Your task to perform on an android device: turn on the 24-hour format for clock Image 0: 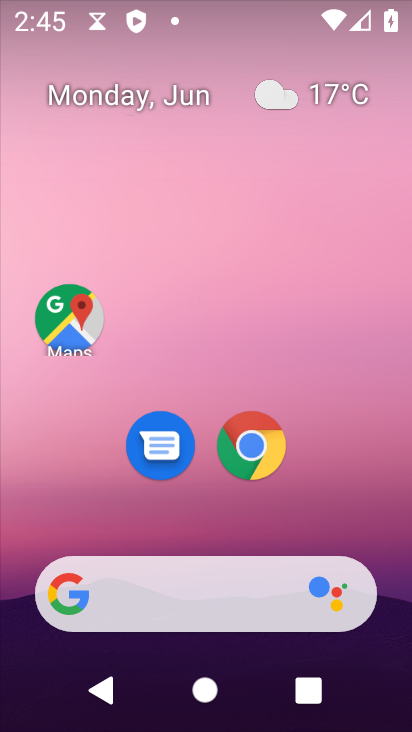
Step 0: drag from (252, 521) to (342, 78)
Your task to perform on an android device: turn on the 24-hour format for clock Image 1: 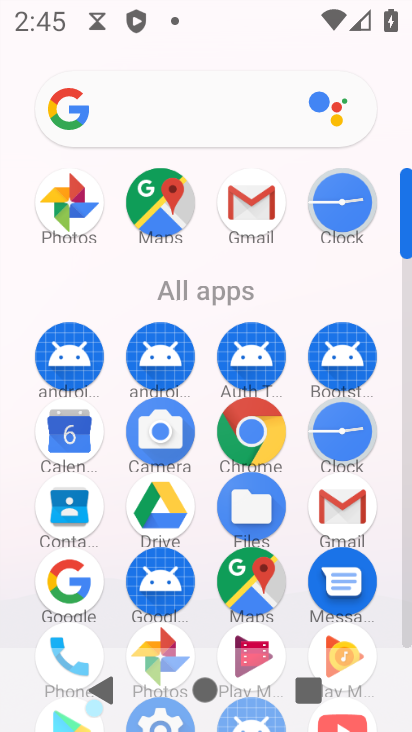
Step 1: click (360, 449)
Your task to perform on an android device: turn on the 24-hour format for clock Image 2: 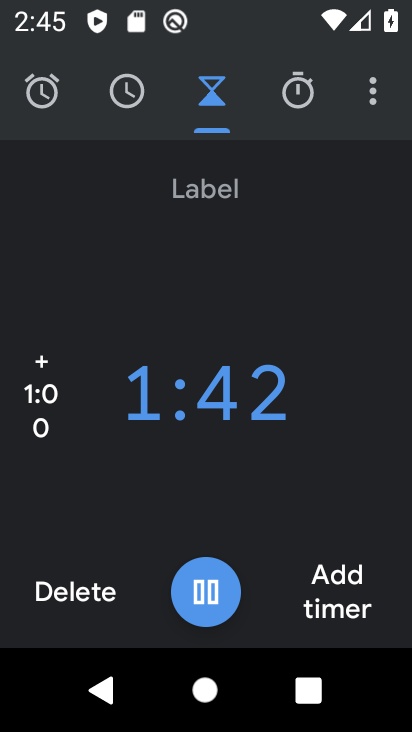
Step 2: click (374, 104)
Your task to perform on an android device: turn on the 24-hour format for clock Image 3: 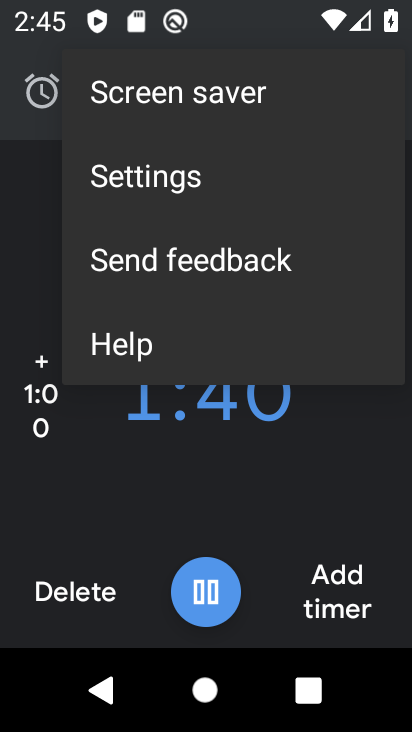
Step 3: click (274, 178)
Your task to perform on an android device: turn on the 24-hour format for clock Image 4: 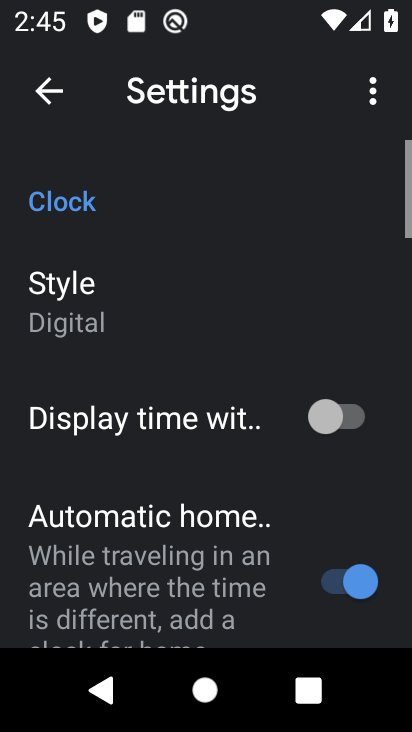
Step 4: drag from (139, 556) to (261, 134)
Your task to perform on an android device: turn on the 24-hour format for clock Image 5: 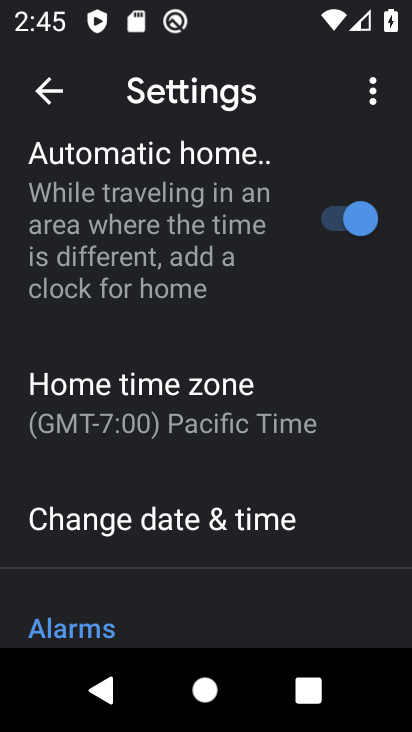
Step 5: click (163, 533)
Your task to perform on an android device: turn on the 24-hour format for clock Image 6: 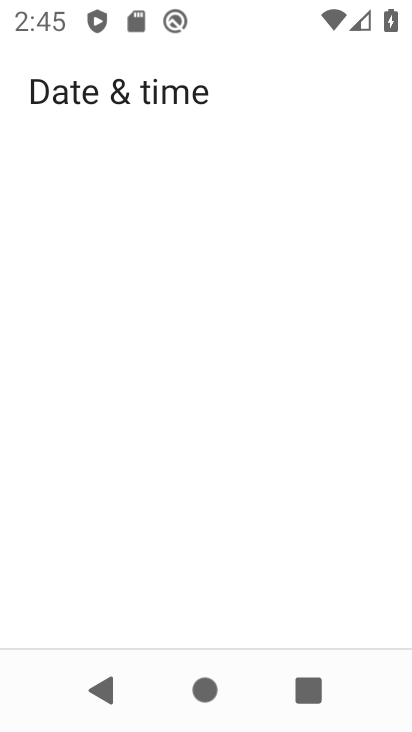
Step 6: drag from (165, 617) to (341, 116)
Your task to perform on an android device: turn on the 24-hour format for clock Image 7: 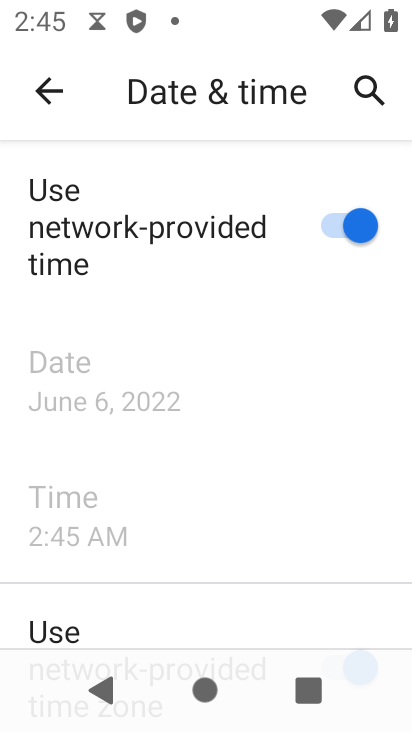
Step 7: drag from (150, 591) to (293, 196)
Your task to perform on an android device: turn on the 24-hour format for clock Image 8: 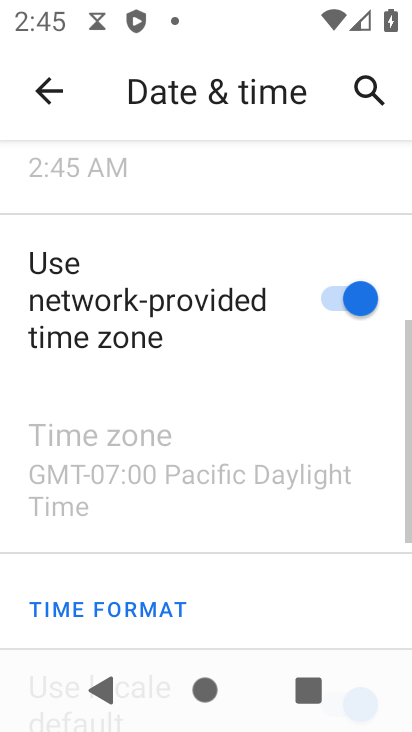
Step 8: drag from (179, 563) to (295, 222)
Your task to perform on an android device: turn on the 24-hour format for clock Image 9: 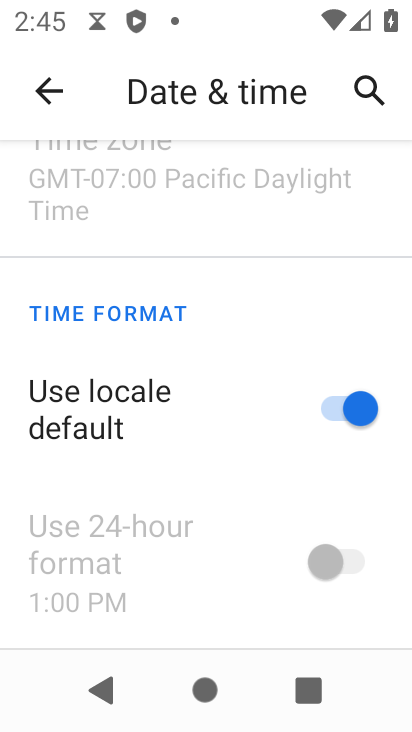
Step 9: click (343, 405)
Your task to perform on an android device: turn on the 24-hour format for clock Image 10: 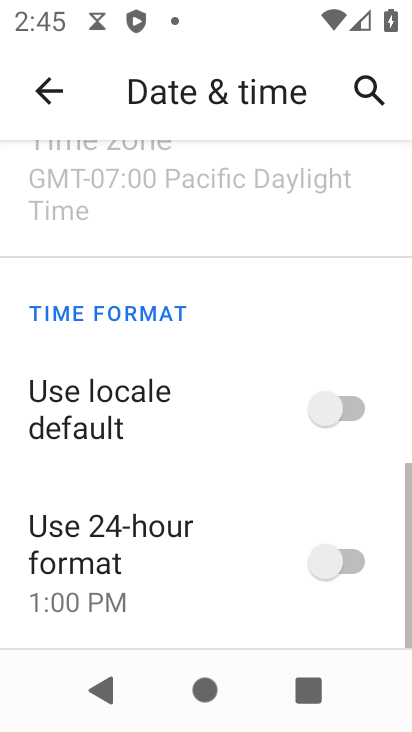
Step 10: click (371, 573)
Your task to perform on an android device: turn on the 24-hour format for clock Image 11: 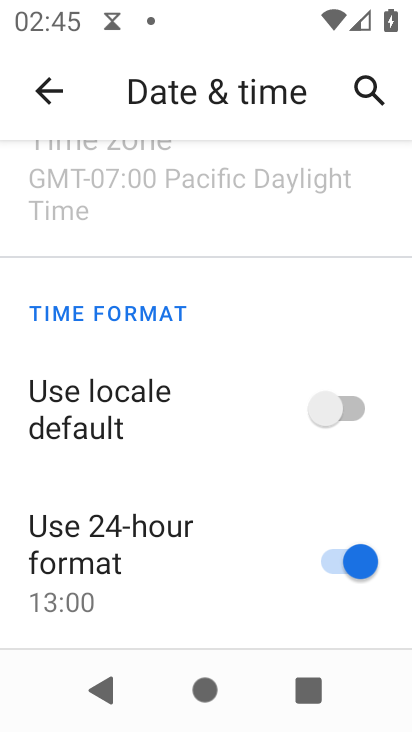
Step 11: task complete